Your task to perform on an android device: move an email to a new category in the gmail app Image 0: 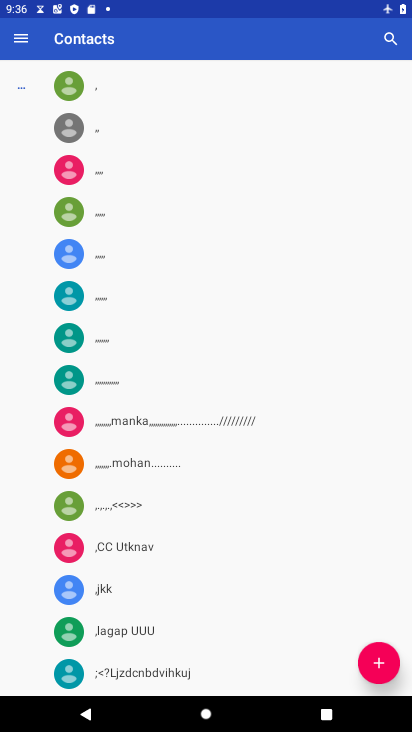
Step 0: press home button
Your task to perform on an android device: move an email to a new category in the gmail app Image 1: 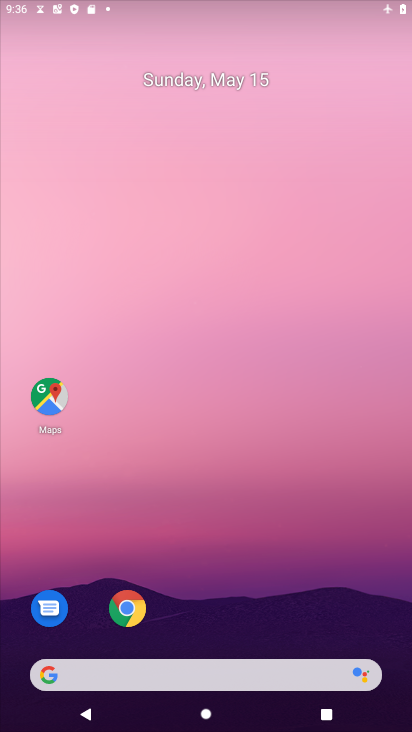
Step 1: drag from (319, 512) to (310, 48)
Your task to perform on an android device: move an email to a new category in the gmail app Image 2: 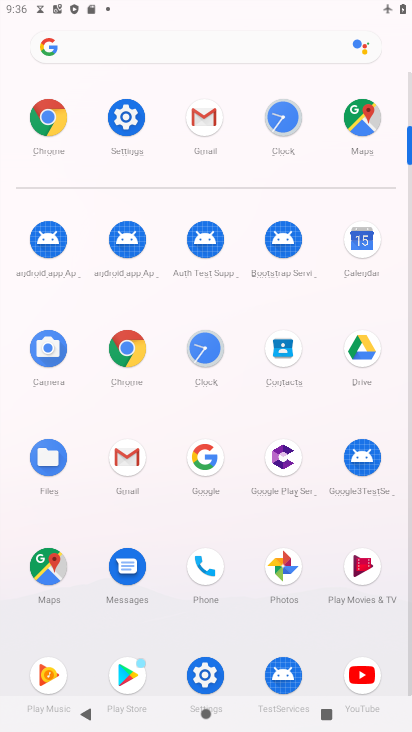
Step 2: click (194, 142)
Your task to perform on an android device: move an email to a new category in the gmail app Image 3: 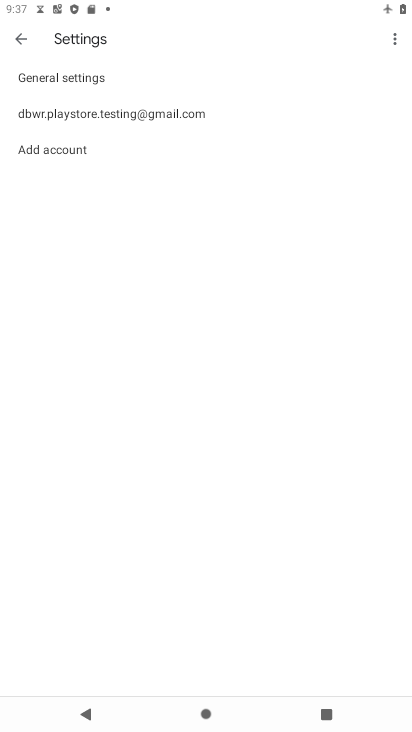
Step 3: click (154, 112)
Your task to perform on an android device: move an email to a new category in the gmail app Image 4: 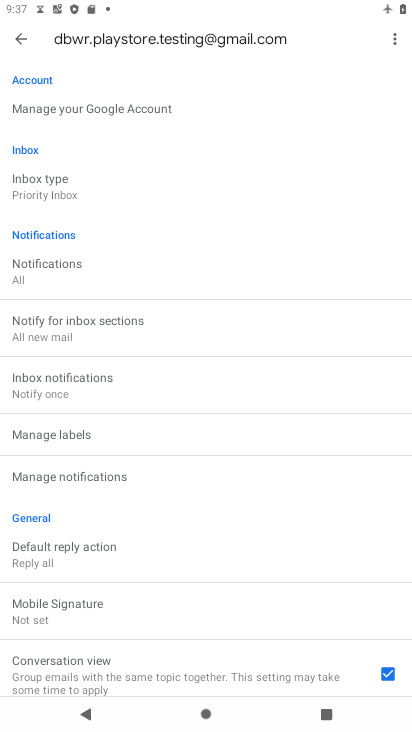
Step 4: click (23, 46)
Your task to perform on an android device: move an email to a new category in the gmail app Image 5: 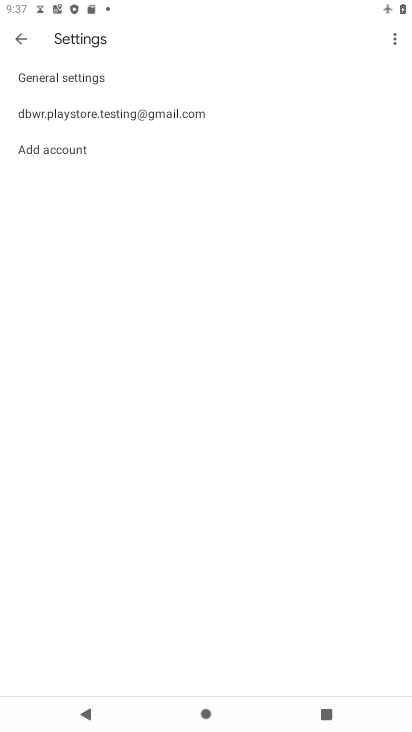
Step 5: click (23, 45)
Your task to perform on an android device: move an email to a new category in the gmail app Image 6: 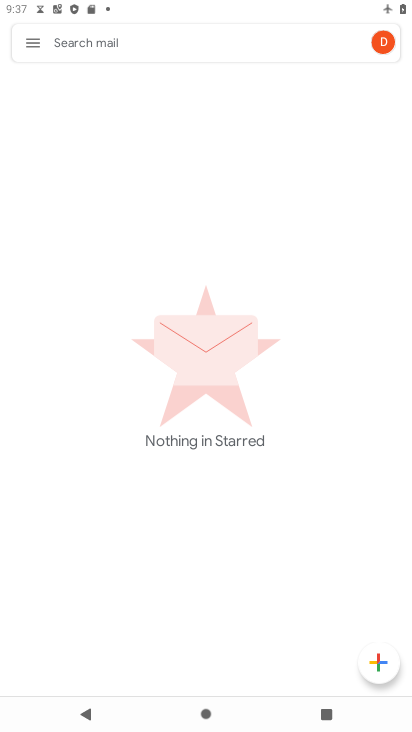
Step 6: click (23, 45)
Your task to perform on an android device: move an email to a new category in the gmail app Image 7: 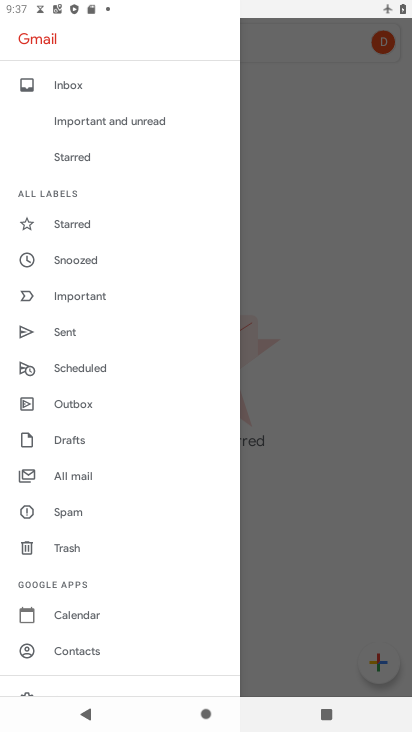
Step 7: click (50, 478)
Your task to perform on an android device: move an email to a new category in the gmail app Image 8: 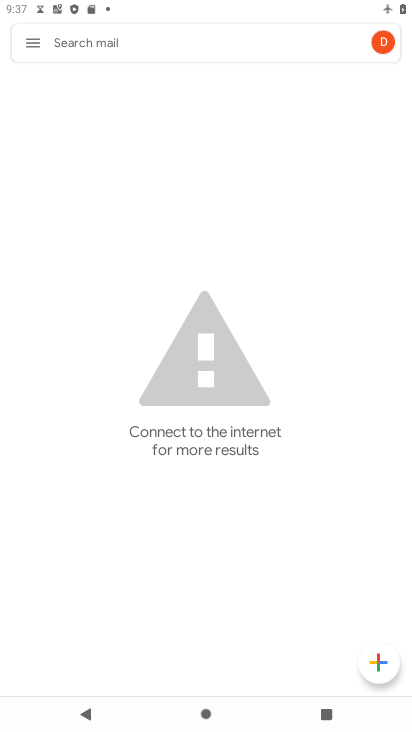
Step 8: task complete